Your task to perform on an android device: open a new tab in the chrome app Image 0: 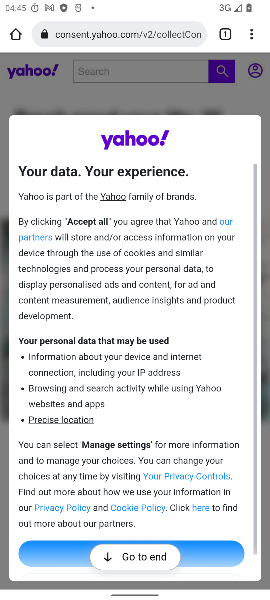
Step 0: press home button
Your task to perform on an android device: open a new tab in the chrome app Image 1: 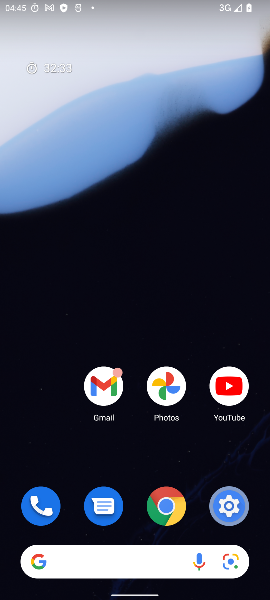
Step 1: drag from (135, 510) to (170, 69)
Your task to perform on an android device: open a new tab in the chrome app Image 2: 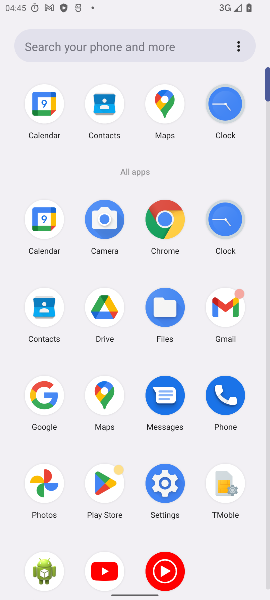
Step 2: click (170, 229)
Your task to perform on an android device: open a new tab in the chrome app Image 3: 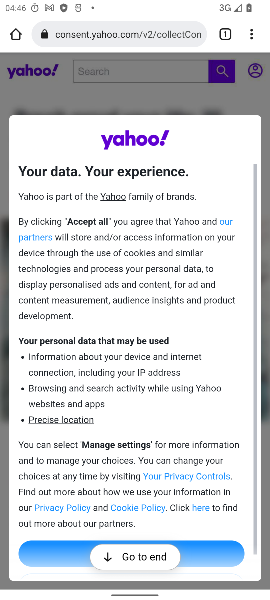
Step 3: task complete